Your task to perform on an android device: change the clock display to digital Image 0: 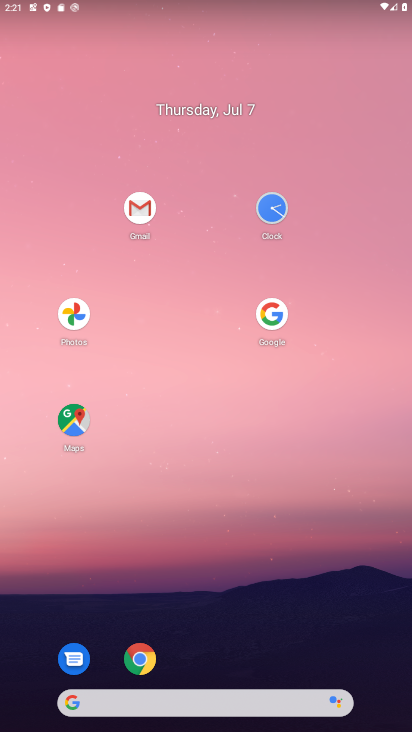
Step 0: click (280, 220)
Your task to perform on an android device: change the clock display to digital Image 1: 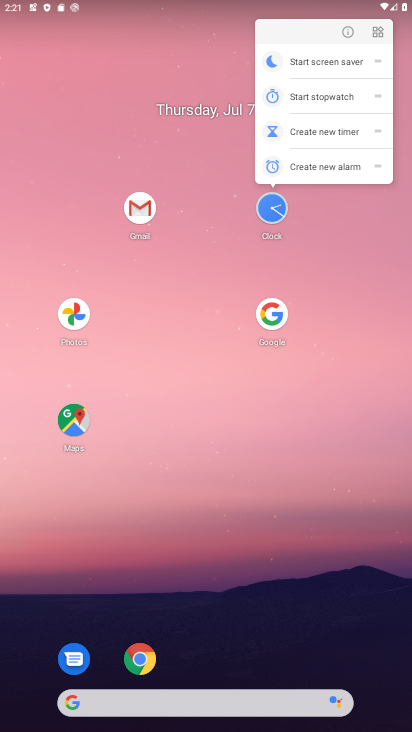
Step 1: click (287, 207)
Your task to perform on an android device: change the clock display to digital Image 2: 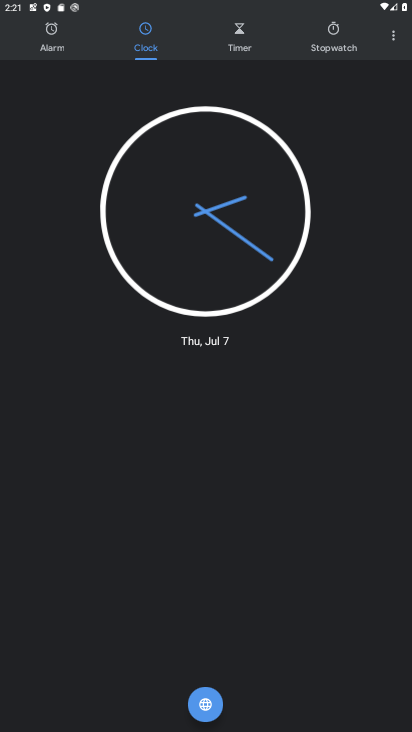
Step 2: click (400, 27)
Your task to perform on an android device: change the clock display to digital Image 3: 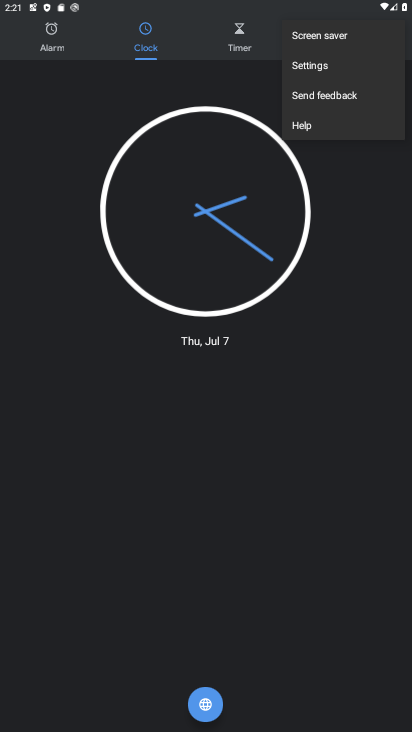
Step 3: click (341, 76)
Your task to perform on an android device: change the clock display to digital Image 4: 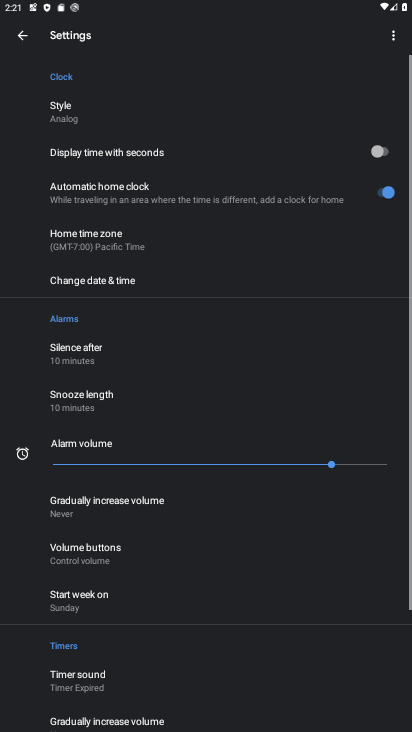
Step 4: click (109, 119)
Your task to perform on an android device: change the clock display to digital Image 5: 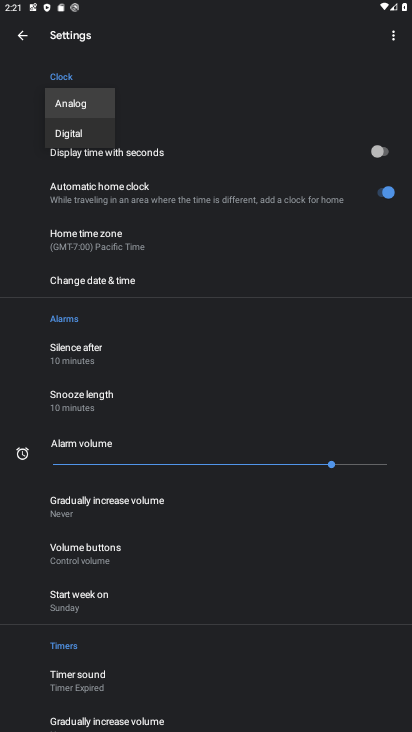
Step 5: click (92, 138)
Your task to perform on an android device: change the clock display to digital Image 6: 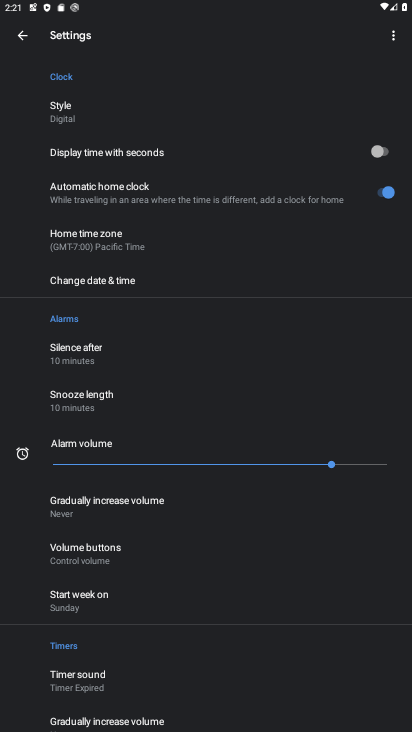
Step 6: task complete